Your task to perform on an android device: Open the stopwatch Image 0: 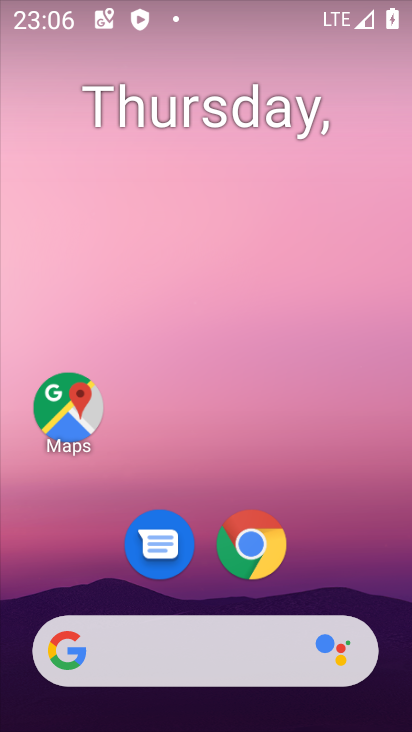
Step 0: drag from (218, 438) to (157, 118)
Your task to perform on an android device: Open the stopwatch Image 1: 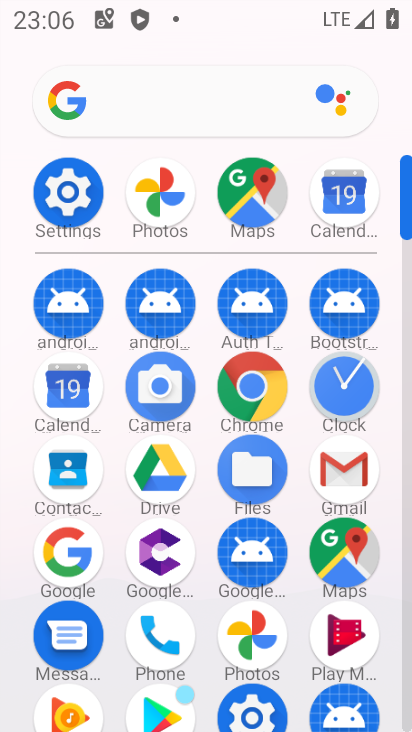
Step 1: click (341, 370)
Your task to perform on an android device: Open the stopwatch Image 2: 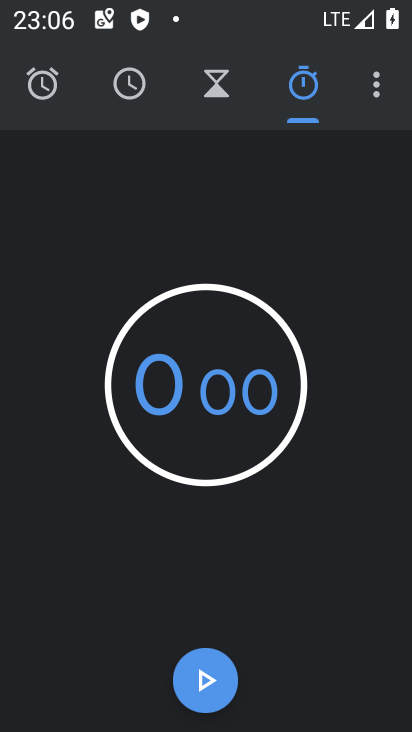
Step 2: click (313, 89)
Your task to perform on an android device: Open the stopwatch Image 3: 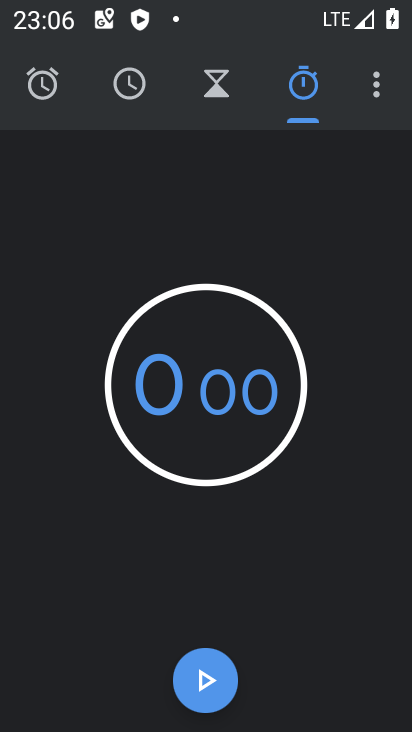
Step 3: task complete